Your task to perform on an android device: Go to display settings Image 0: 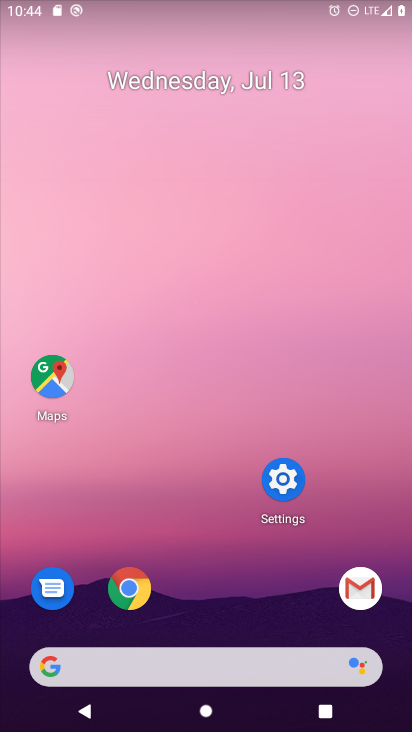
Step 0: click (285, 506)
Your task to perform on an android device: Go to display settings Image 1: 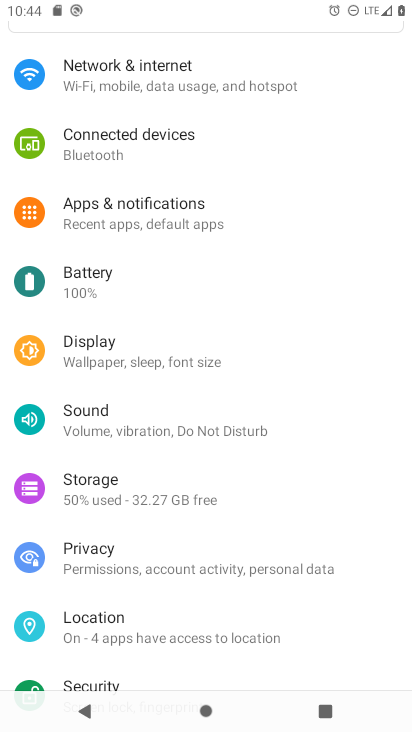
Step 1: click (112, 355)
Your task to perform on an android device: Go to display settings Image 2: 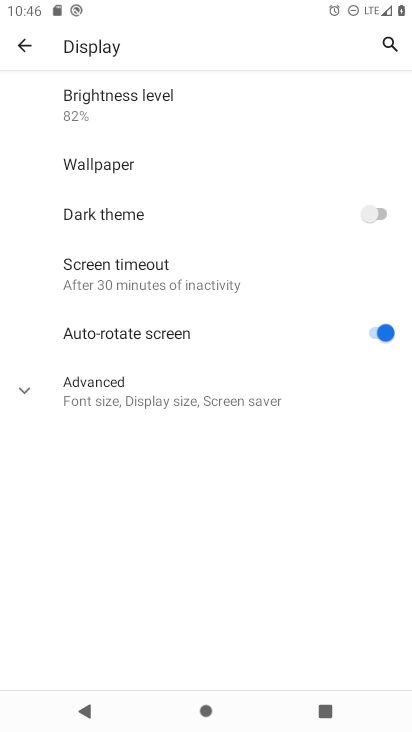
Step 2: task complete